Your task to perform on an android device: Open Youtube and go to "Your channel" Image 0: 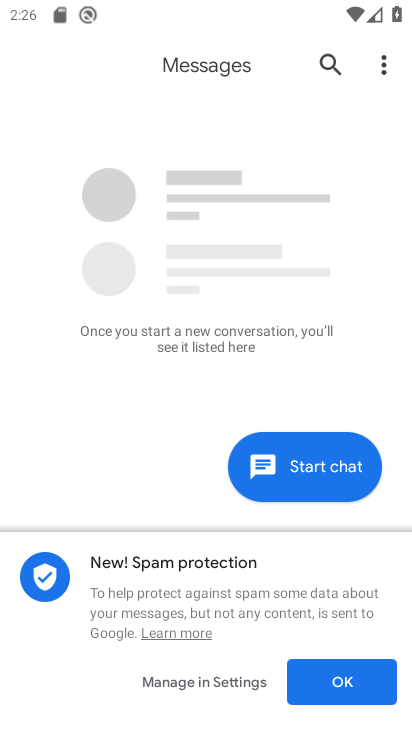
Step 0: press home button
Your task to perform on an android device: Open Youtube and go to "Your channel" Image 1: 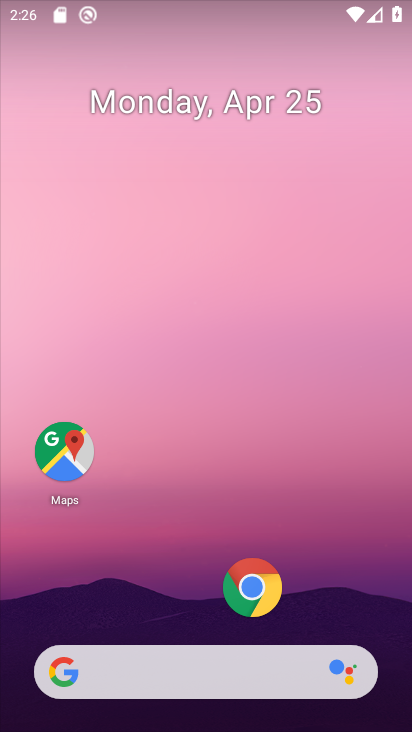
Step 1: drag from (196, 619) to (226, 139)
Your task to perform on an android device: Open Youtube and go to "Your channel" Image 2: 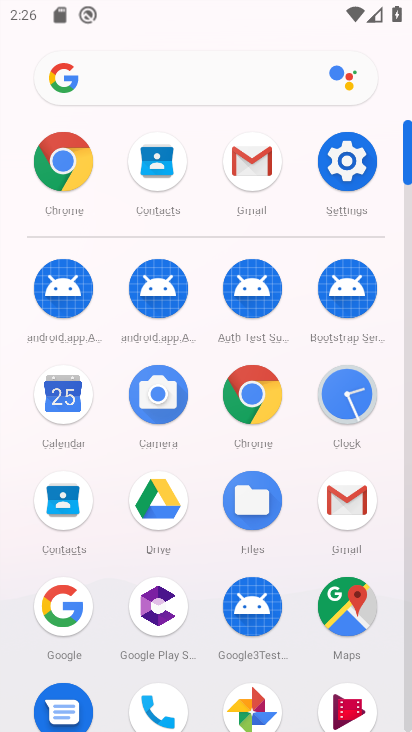
Step 2: drag from (202, 649) to (201, 243)
Your task to perform on an android device: Open Youtube and go to "Your channel" Image 3: 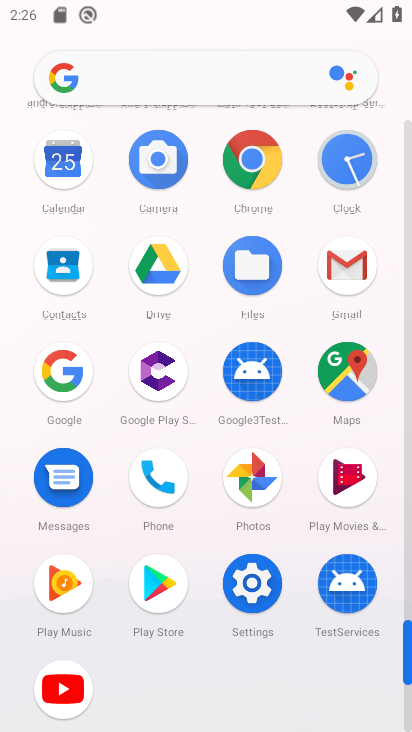
Step 3: click (61, 688)
Your task to perform on an android device: Open Youtube and go to "Your channel" Image 4: 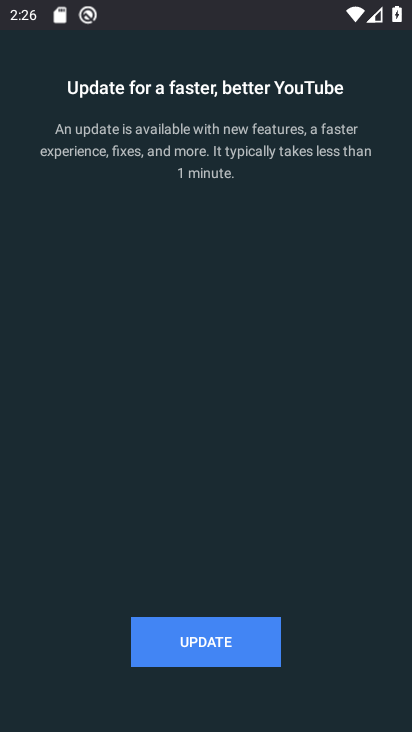
Step 4: click (204, 634)
Your task to perform on an android device: Open Youtube and go to "Your channel" Image 5: 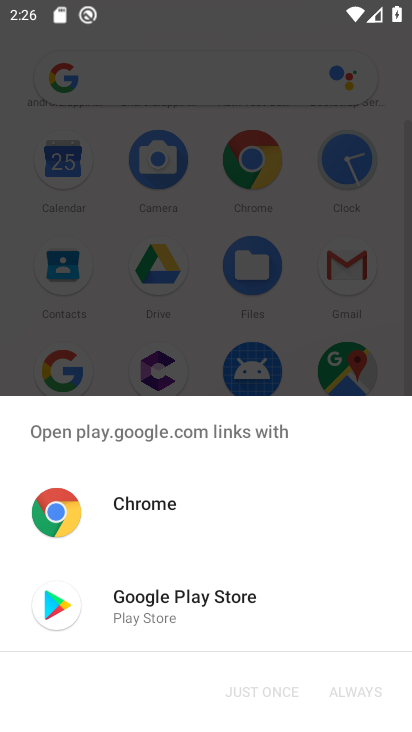
Step 5: click (158, 598)
Your task to perform on an android device: Open Youtube and go to "Your channel" Image 6: 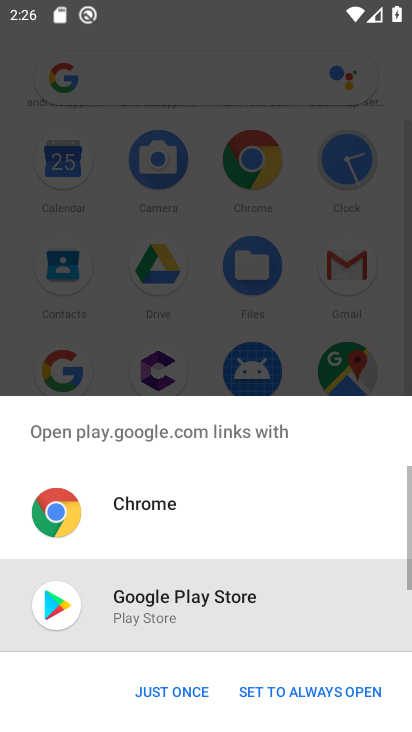
Step 6: click (179, 691)
Your task to perform on an android device: Open Youtube and go to "Your channel" Image 7: 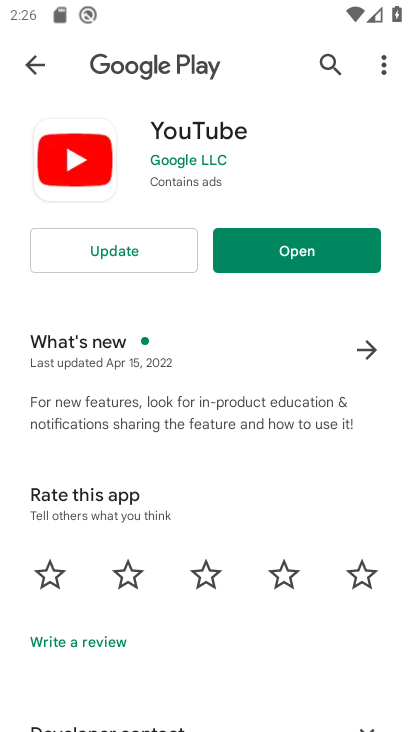
Step 7: click (119, 250)
Your task to perform on an android device: Open Youtube and go to "Your channel" Image 8: 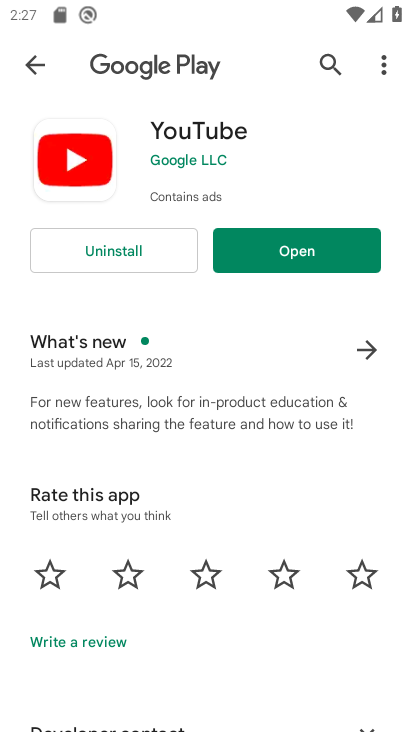
Step 8: click (298, 258)
Your task to perform on an android device: Open Youtube and go to "Your channel" Image 9: 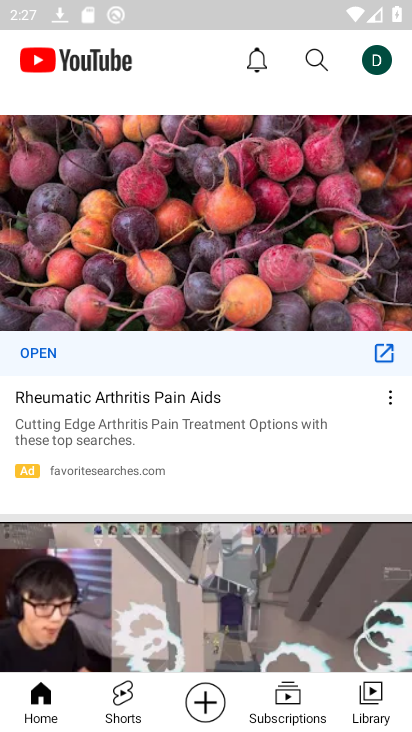
Step 9: click (374, 58)
Your task to perform on an android device: Open Youtube and go to "Your channel" Image 10: 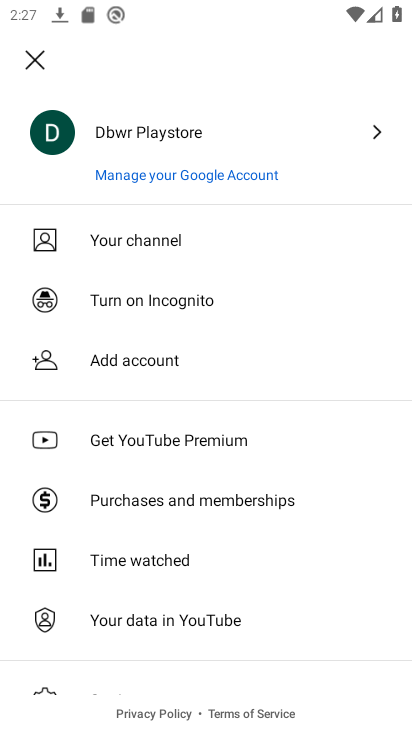
Step 10: click (189, 236)
Your task to perform on an android device: Open Youtube and go to "Your channel" Image 11: 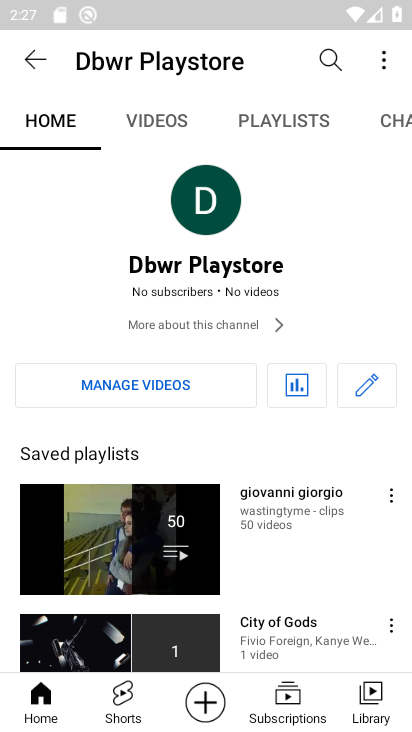
Step 11: task complete